Your task to perform on an android device: What's the news in Argentina? Image 0: 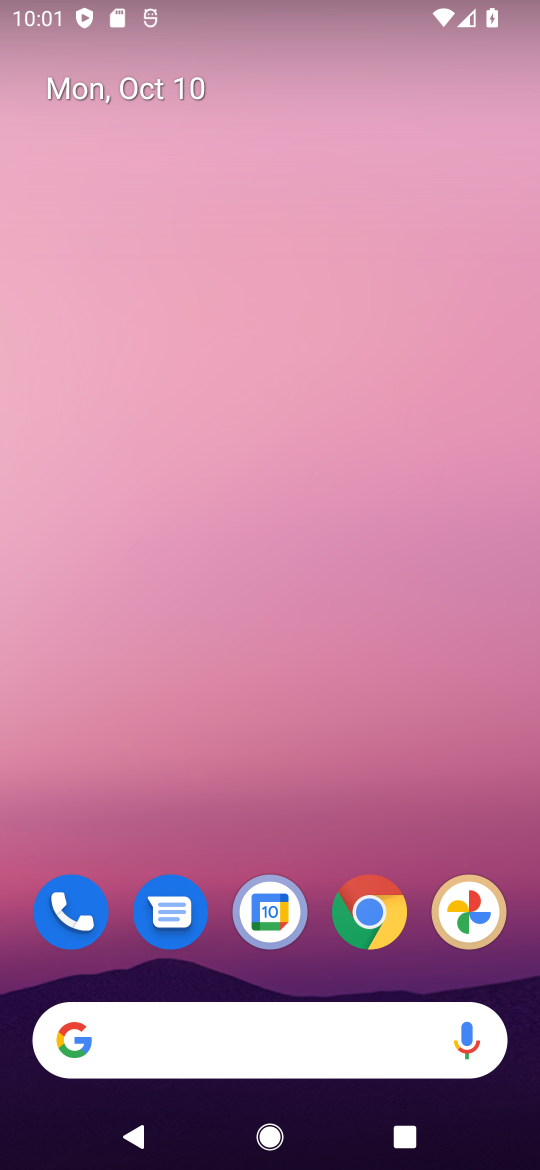
Step 0: click (372, 902)
Your task to perform on an android device: What's the news in Argentina? Image 1: 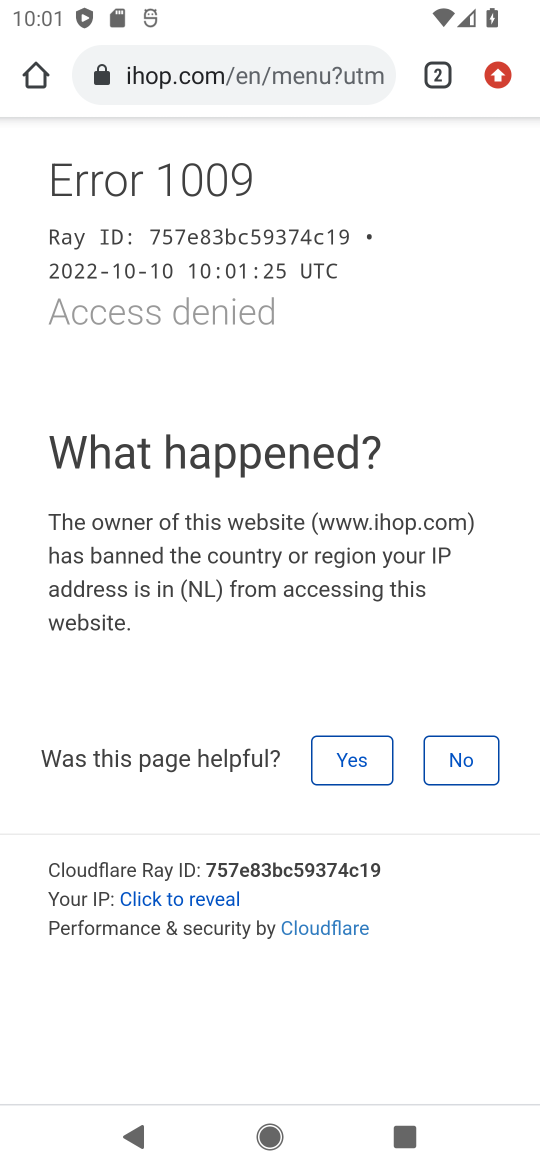
Step 1: click (198, 74)
Your task to perform on an android device: What's the news in Argentina? Image 2: 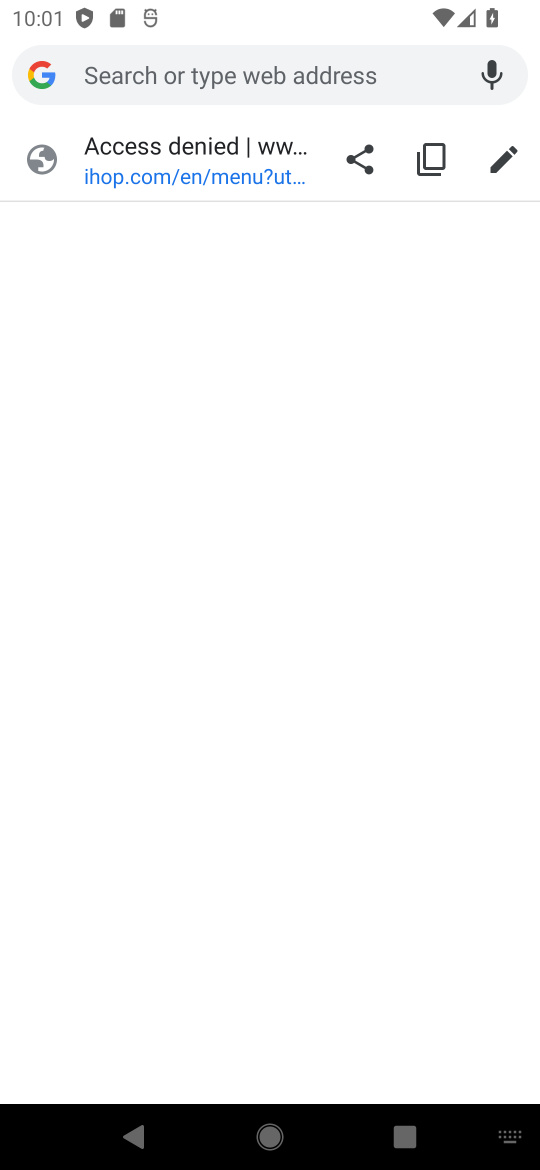
Step 2: click (359, 83)
Your task to perform on an android device: What's the news in Argentina? Image 3: 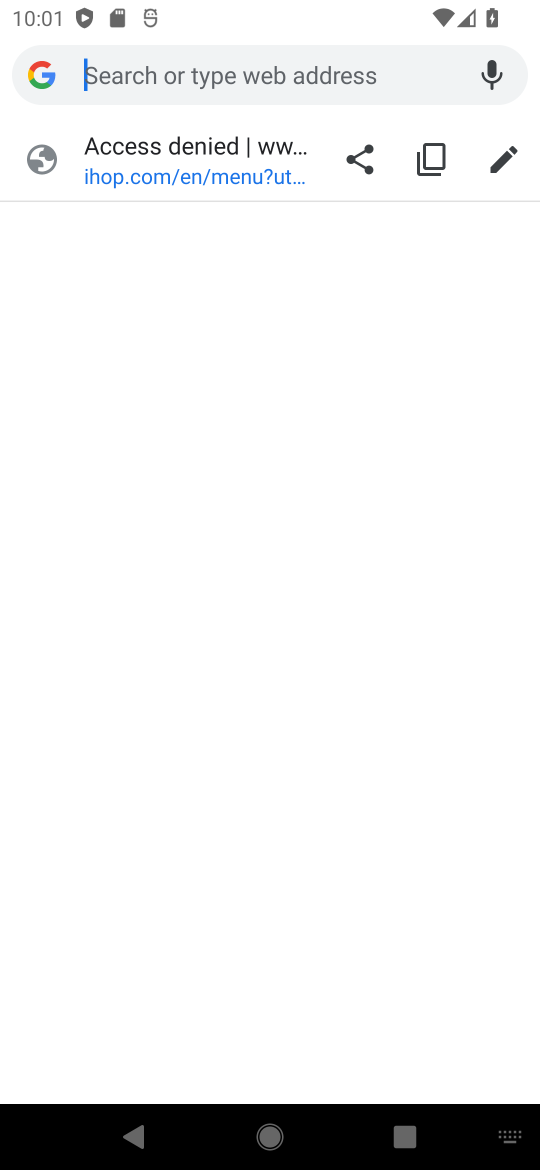
Step 3: type "NEWS IN ARGENTINA?"
Your task to perform on an android device: What's the news in Argentina? Image 4: 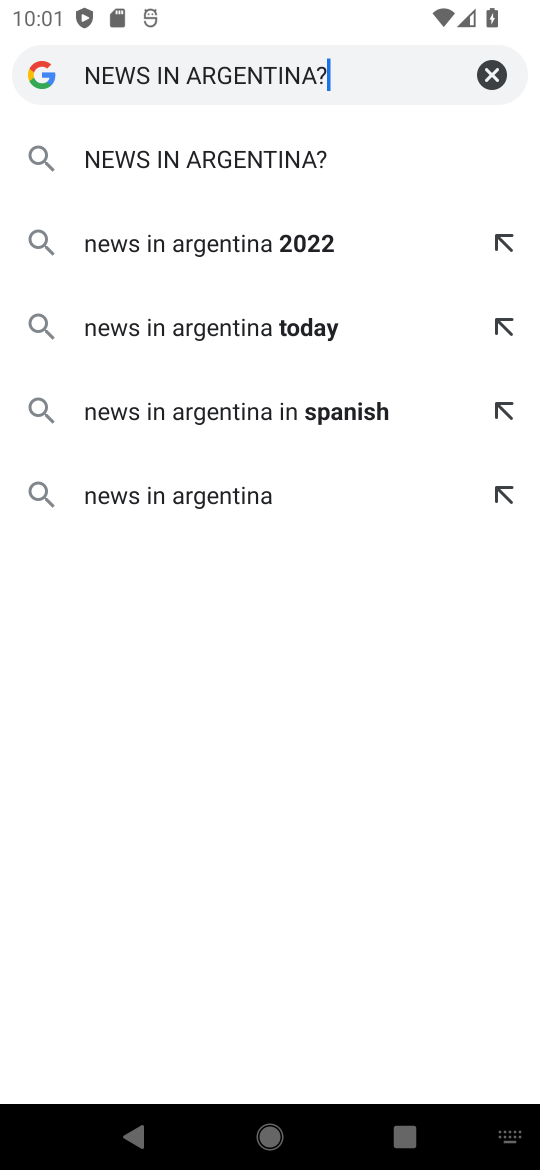
Step 4: click (202, 153)
Your task to perform on an android device: What's the news in Argentina? Image 5: 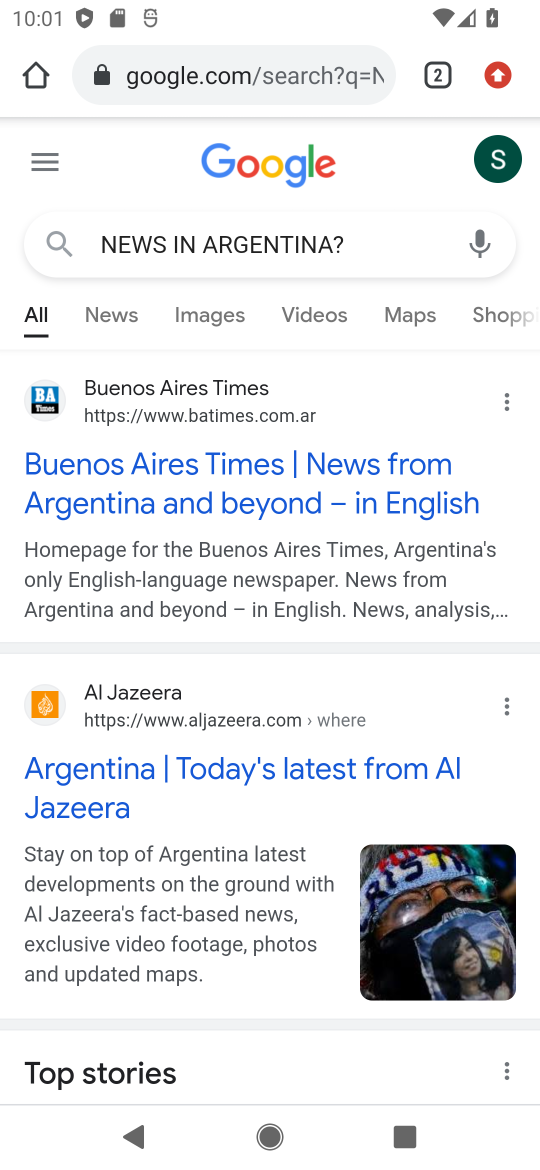
Step 5: click (156, 772)
Your task to perform on an android device: What's the news in Argentina? Image 6: 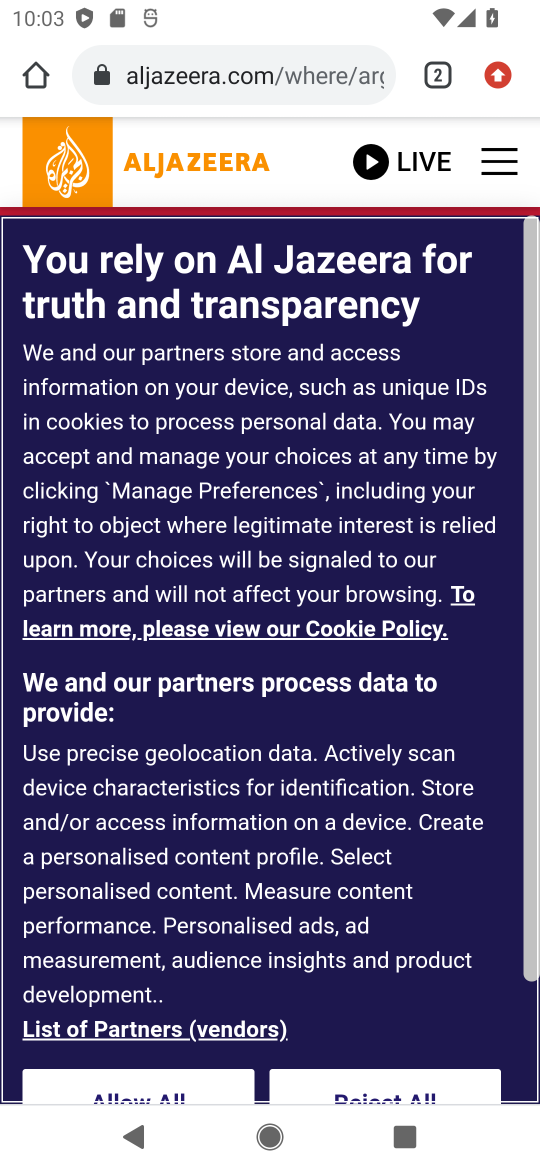
Step 6: task complete